Your task to perform on an android device: empty trash in the gmail app Image 0: 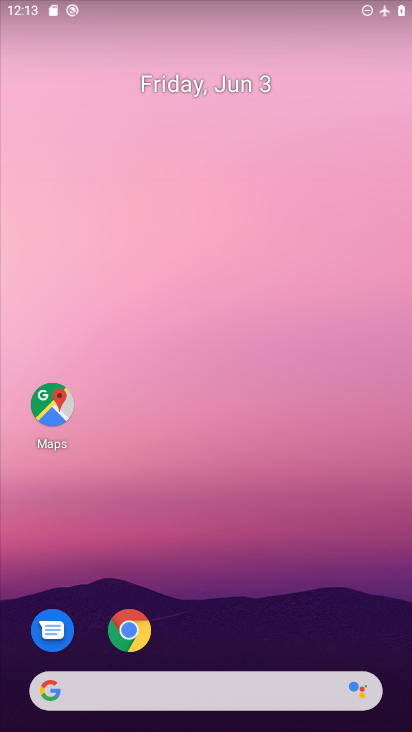
Step 0: drag from (246, 636) to (172, 270)
Your task to perform on an android device: empty trash in the gmail app Image 1: 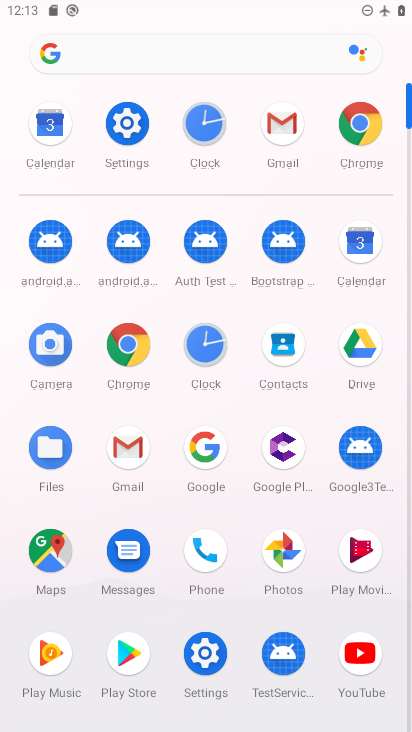
Step 1: click (288, 140)
Your task to perform on an android device: empty trash in the gmail app Image 2: 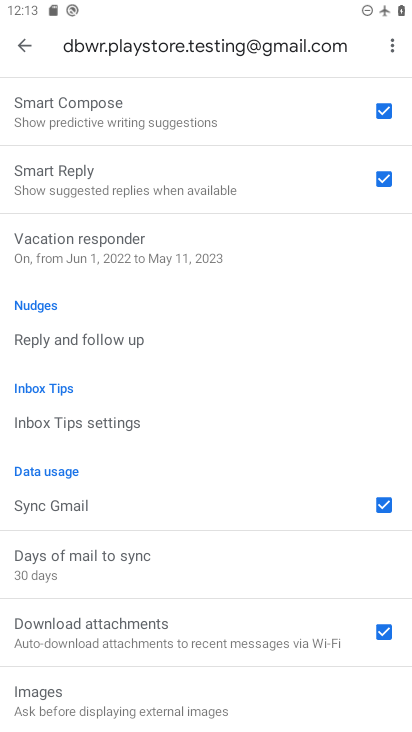
Step 2: click (29, 44)
Your task to perform on an android device: empty trash in the gmail app Image 3: 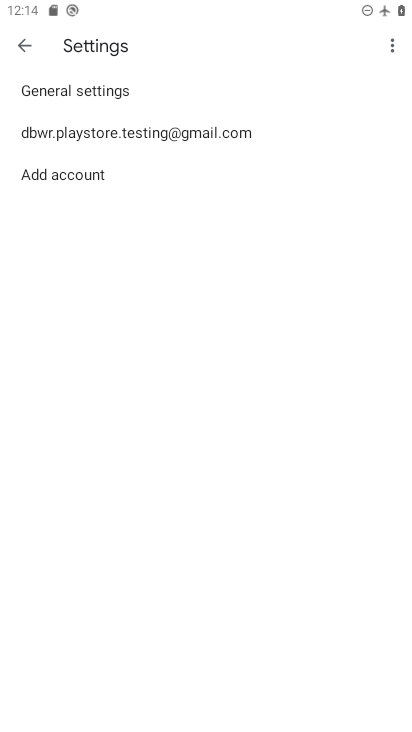
Step 3: click (26, 39)
Your task to perform on an android device: empty trash in the gmail app Image 4: 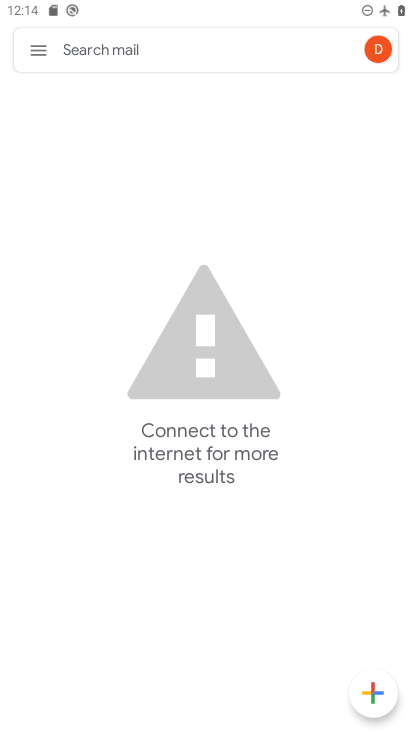
Step 4: click (26, 40)
Your task to perform on an android device: empty trash in the gmail app Image 5: 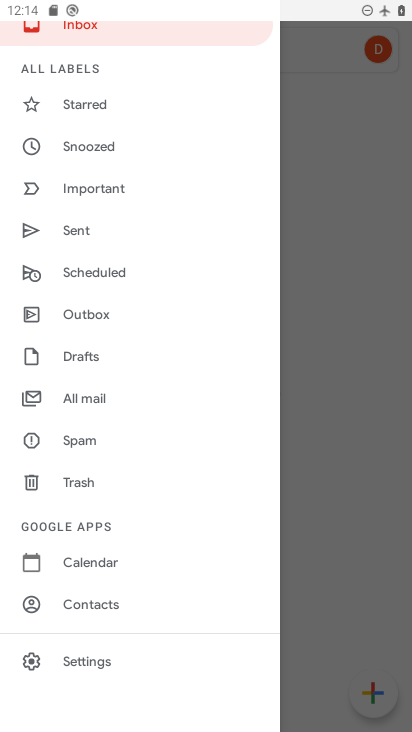
Step 5: click (106, 478)
Your task to perform on an android device: empty trash in the gmail app Image 6: 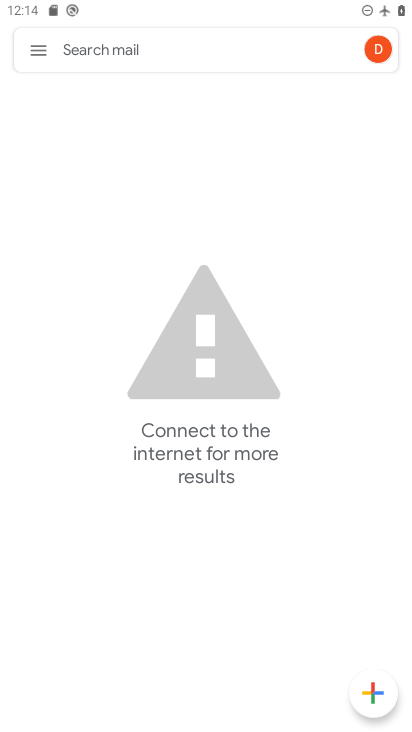
Step 6: task complete